Your task to perform on an android device: open chrome and create a bookmark for the current page Image 0: 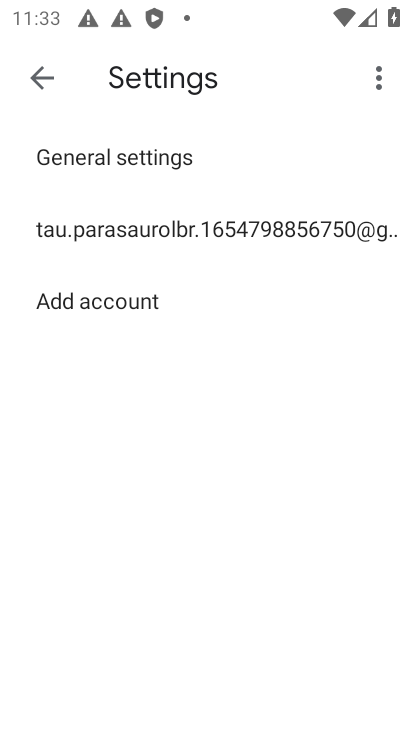
Step 0: press home button
Your task to perform on an android device: open chrome and create a bookmark for the current page Image 1: 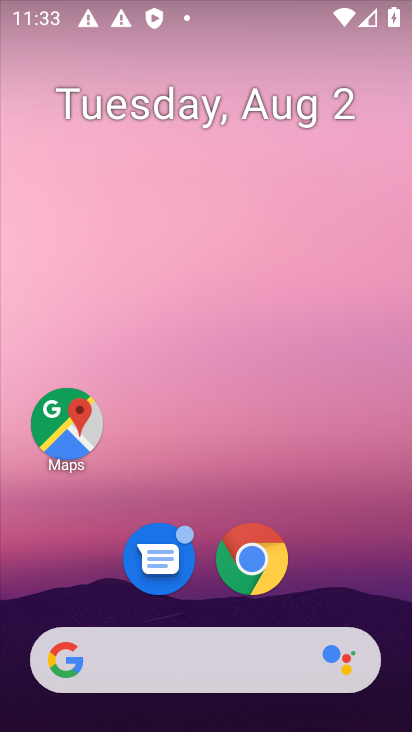
Step 1: click (252, 564)
Your task to perform on an android device: open chrome and create a bookmark for the current page Image 2: 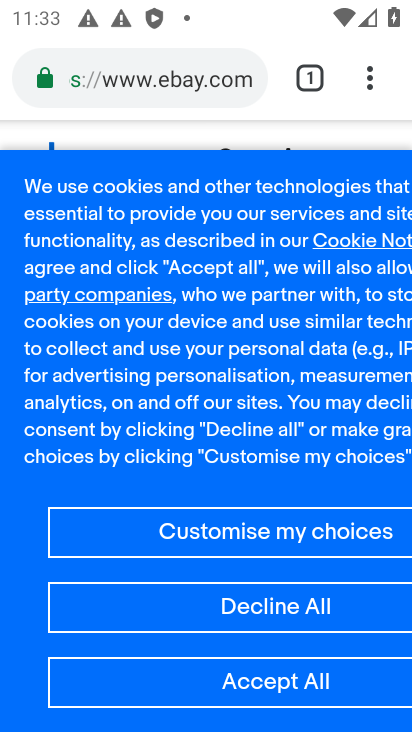
Step 2: click (369, 91)
Your task to perform on an android device: open chrome and create a bookmark for the current page Image 3: 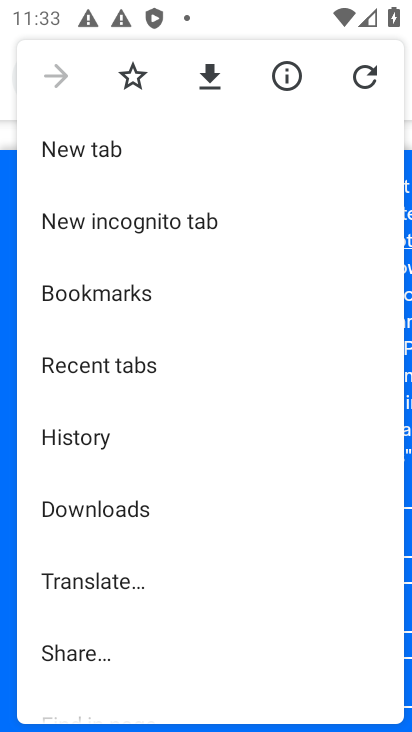
Step 3: click (127, 81)
Your task to perform on an android device: open chrome and create a bookmark for the current page Image 4: 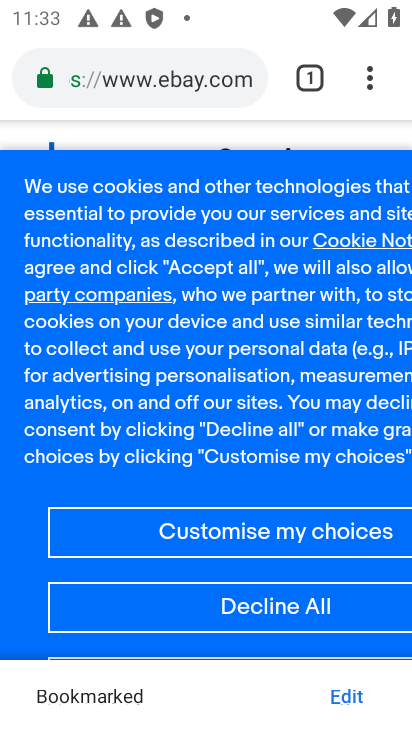
Step 4: task complete